Your task to perform on an android device: all mails in gmail Image 0: 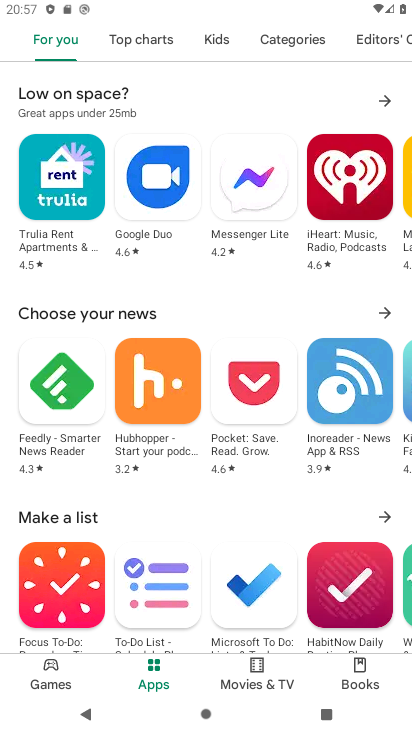
Step 0: press home button
Your task to perform on an android device: all mails in gmail Image 1: 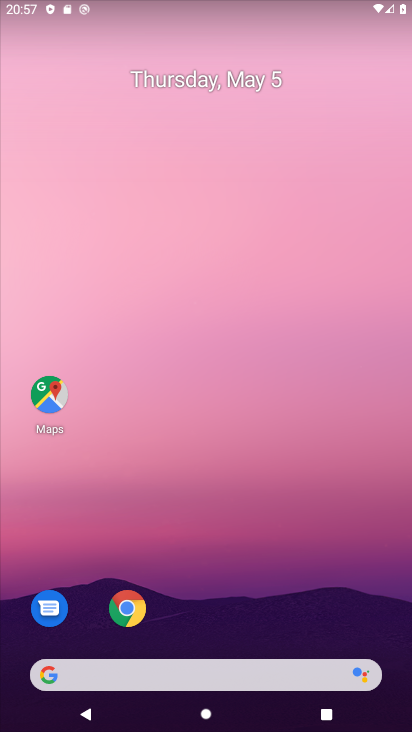
Step 1: drag from (245, 623) to (315, 9)
Your task to perform on an android device: all mails in gmail Image 2: 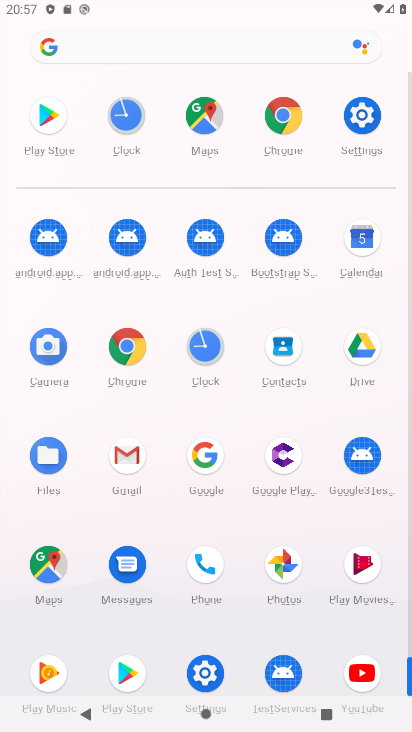
Step 2: click (134, 454)
Your task to perform on an android device: all mails in gmail Image 3: 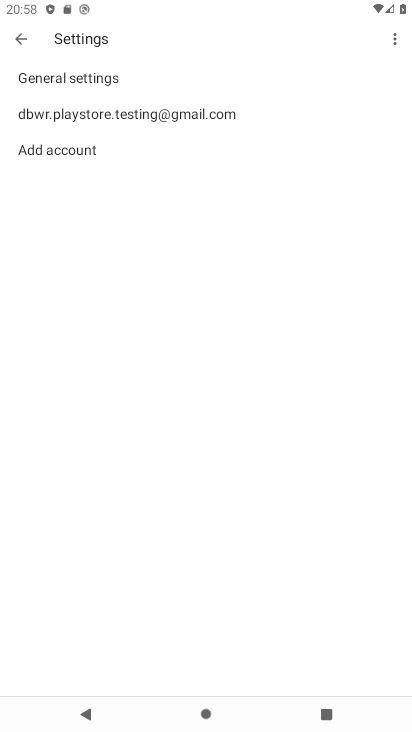
Step 3: press back button
Your task to perform on an android device: all mails in gmail Image 4: 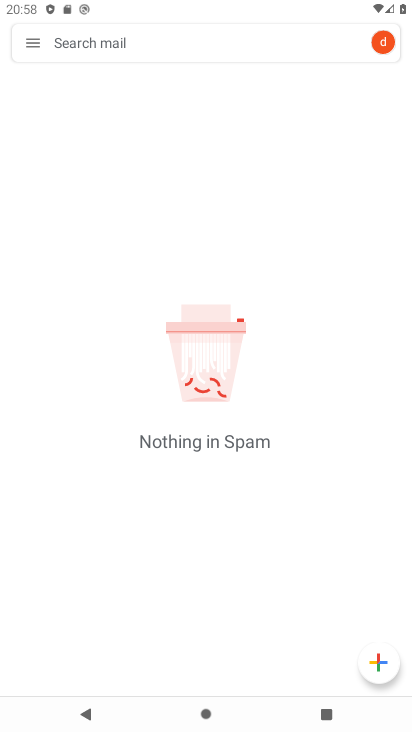
Step 4: click (30, 28)
Your task to perform on an android device: all mails in gmail Image 5: 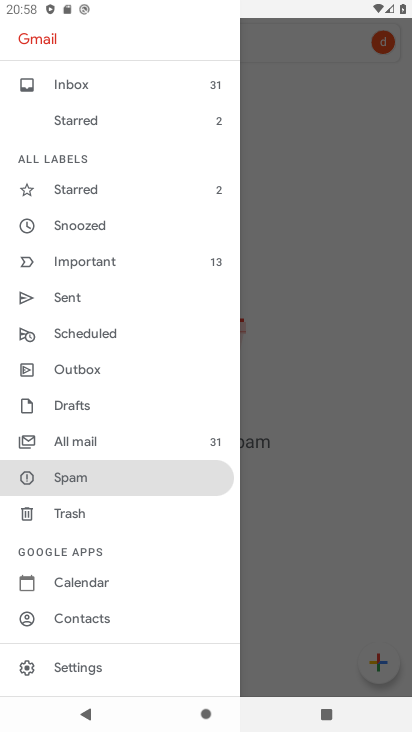
Step 5: click (94, 438)
Your task to perform on an android device: all mails in gmail Image 6: 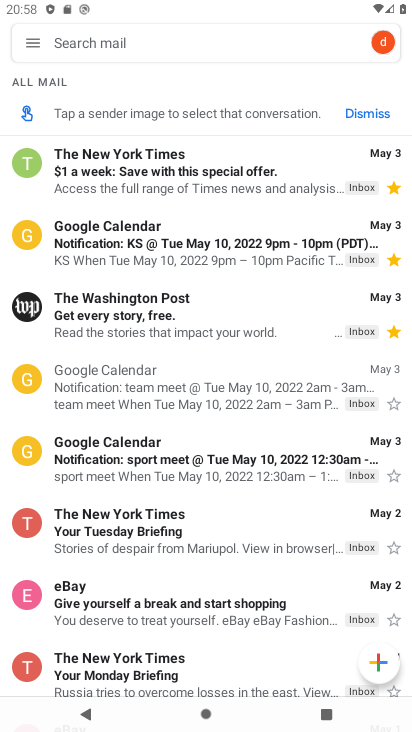
Step 6: task complete